Your task to perform on an android device: set default search engine in the chrome app Image 0: 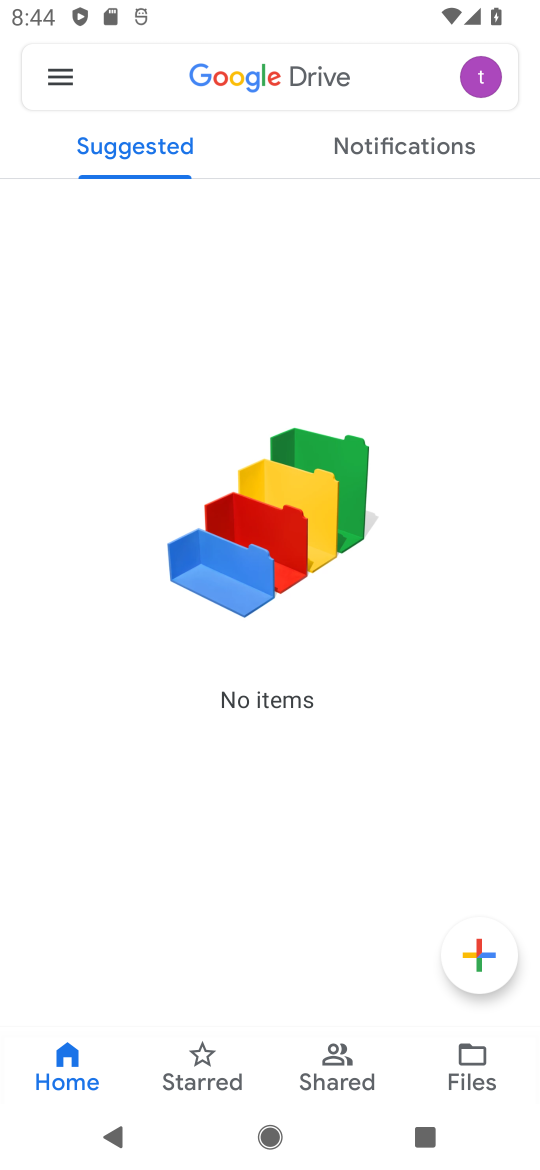
Step 0: press home button
Your task to perform on an android device: set default search engine in the chrome app Image 1: 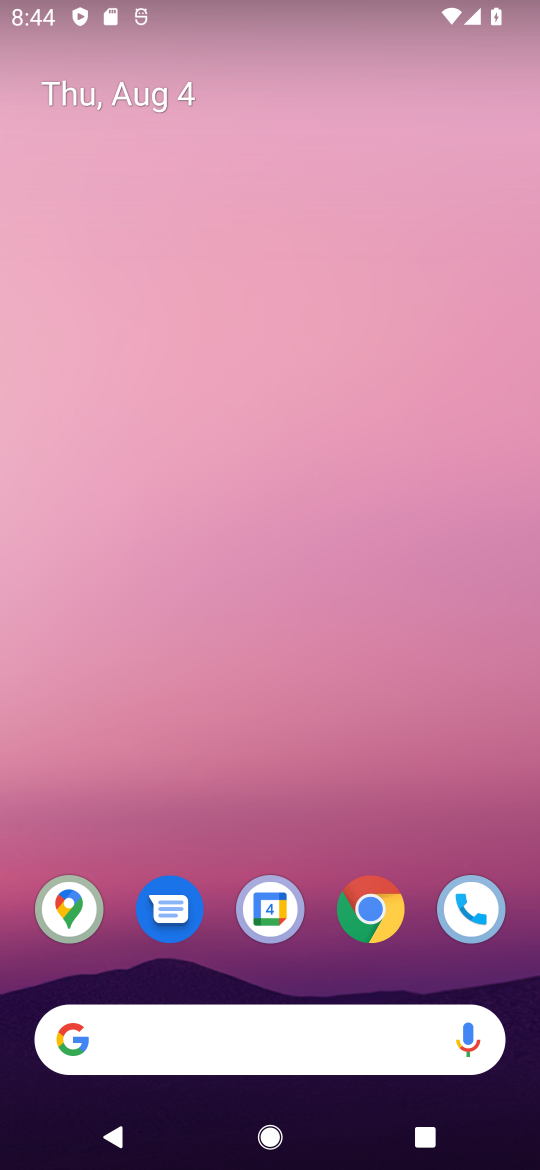
Step 1: drag from (351, 804) to (359, 298)
Your task to perform on an android device: set default search engine in the chrome app Image 2: 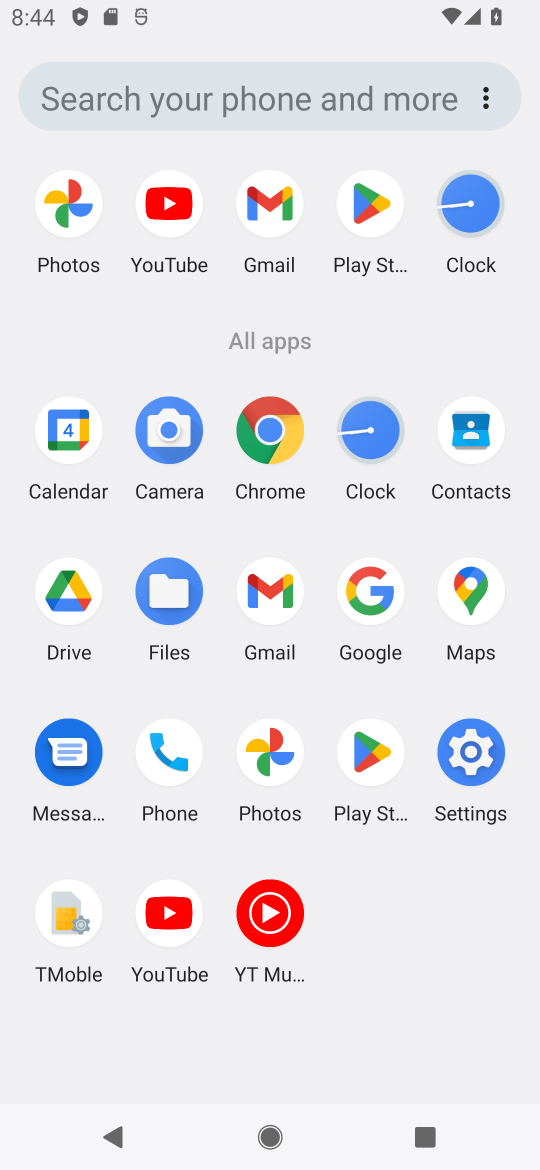
Step 2: click (272, 432)
Your task to perform on an android device: set default search engine in the chrome app Image 3: 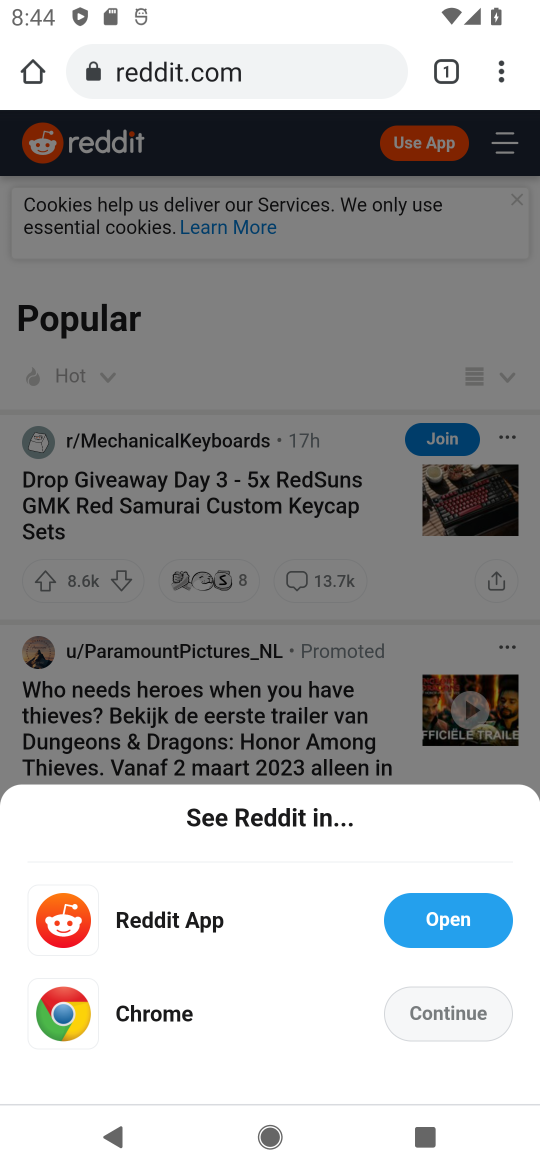
Step 3: click (507, 69)
Your task to perform on an android device: set default search engine in the chrome app Image 4: 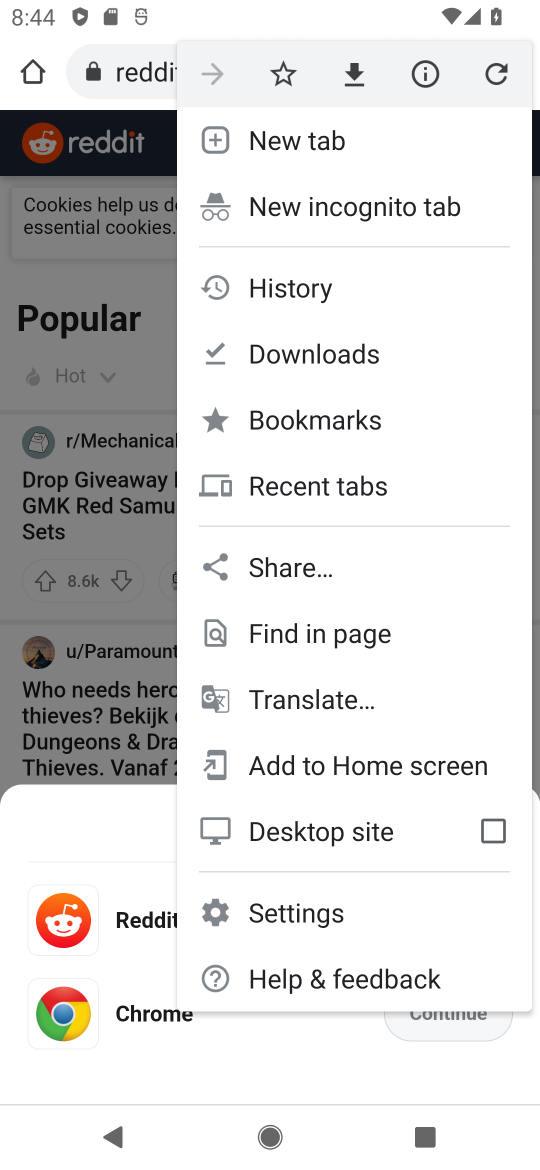
Step 4: click (330, 913)
Your task to perform on an android device: set default search engine in the chrome app Image 5: 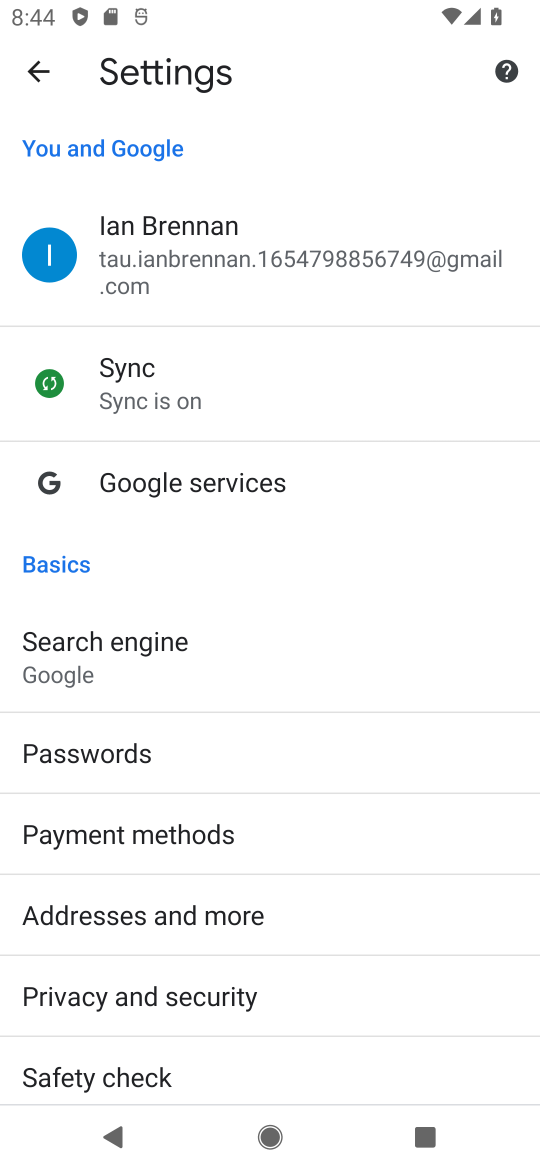
Step 5: drag from (372, 874) to (371, 632)
Your task to perform on an android device: set default search engine in the chrome app Image 6: 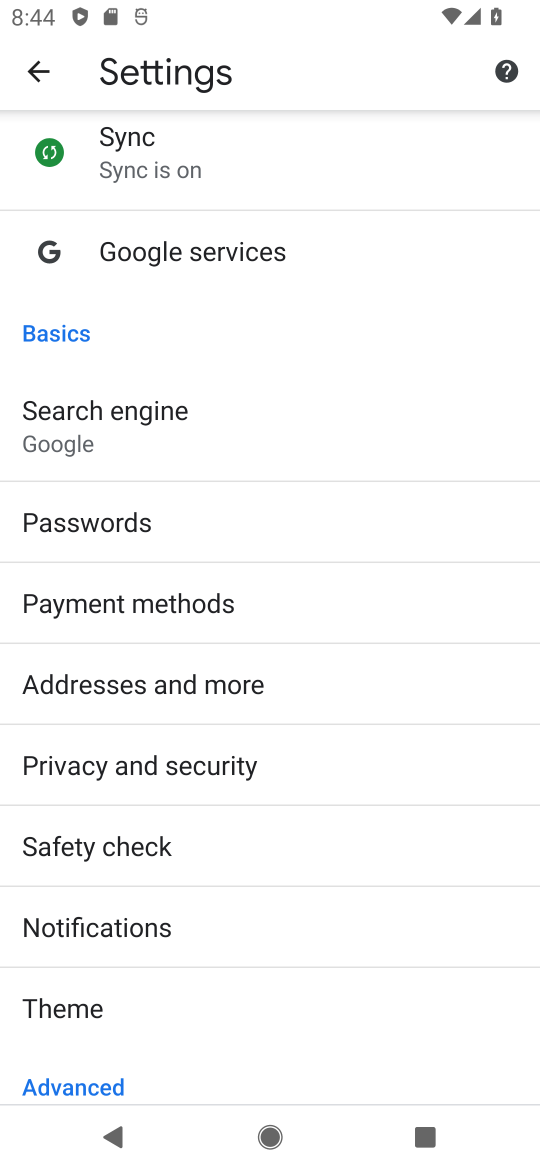
Step 6: drag from (369, 847) to (335, 638)
Your task to perform on an android device: set default search engine in the chrome app Image 7: 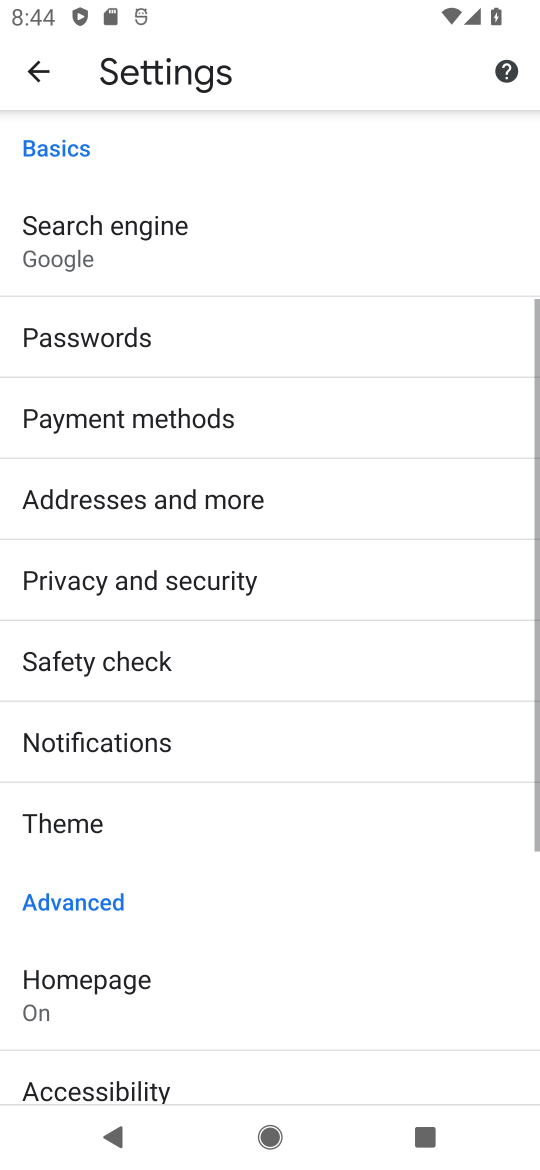
Step 7: drag from (336, 861) to (345, 640)
Your task to perform on an android device: set default search engine in the chrome app Image 8: 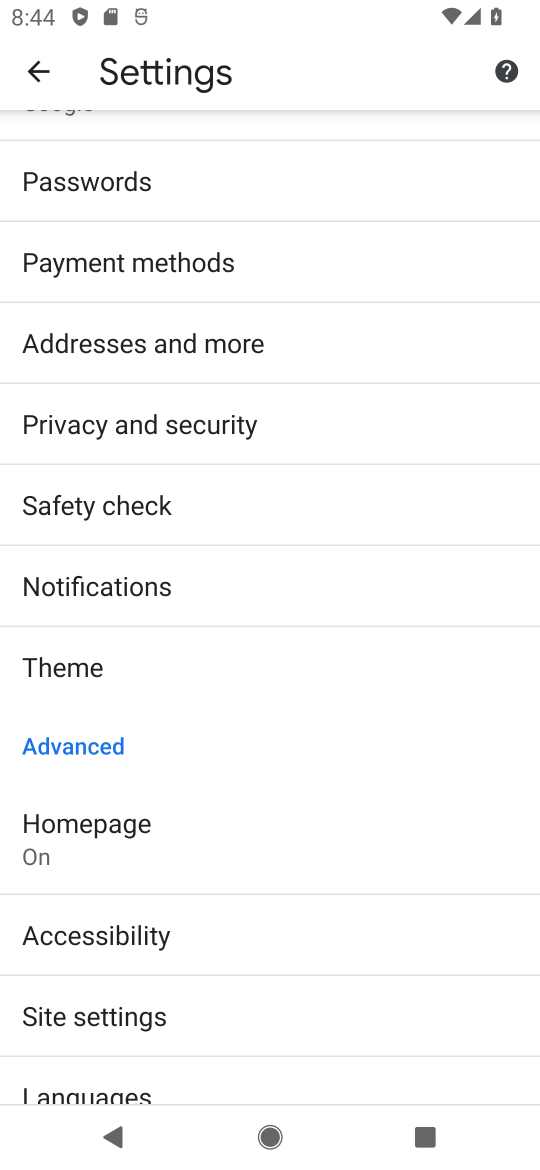
Step 8: drag from (440, 909) to (425, 709)
Your task to perform on an android device: set default search engine in the chrome app Image 9: 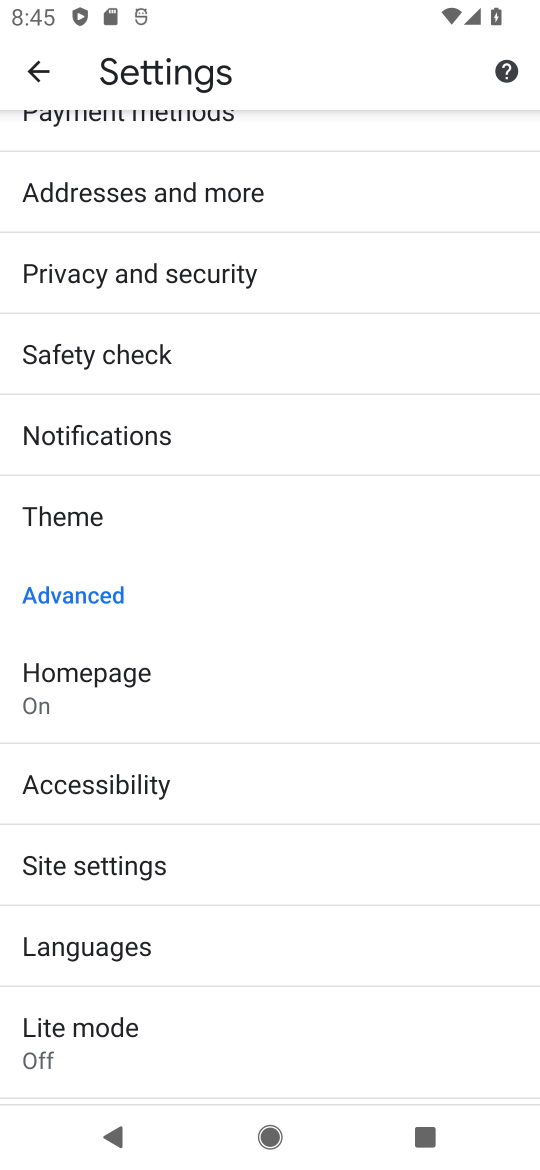
Step 9: drag from (403, 853) to (387, 705)
Your task to perform on an android device: set default search engine in the chrome app Image 10: 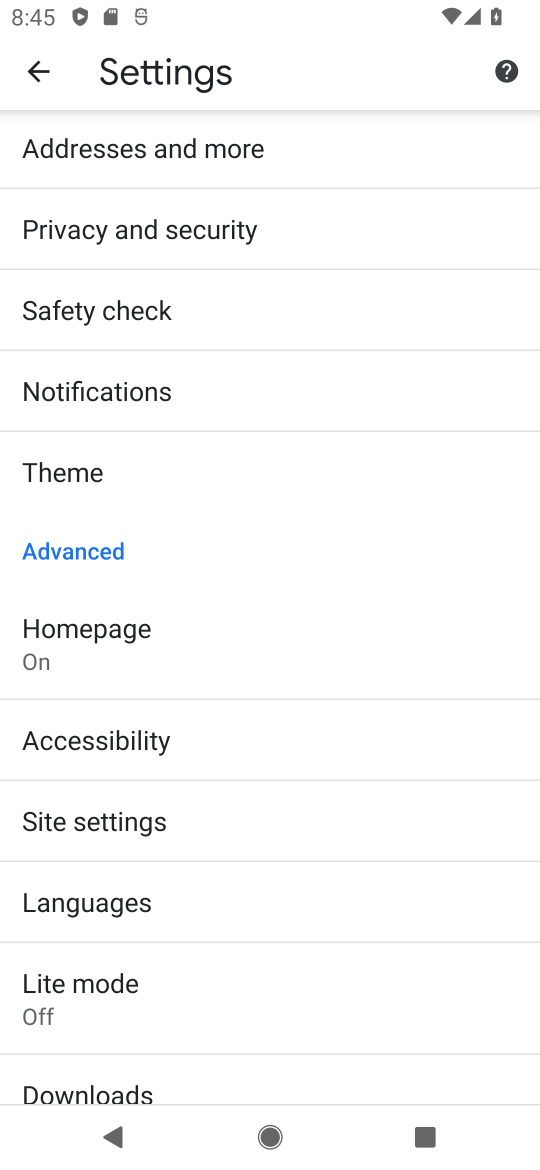
Step 10: drag from (375, 369) to (377, 522)
Your task to perform on an android device: set default search engine in the chrome app Image 11: 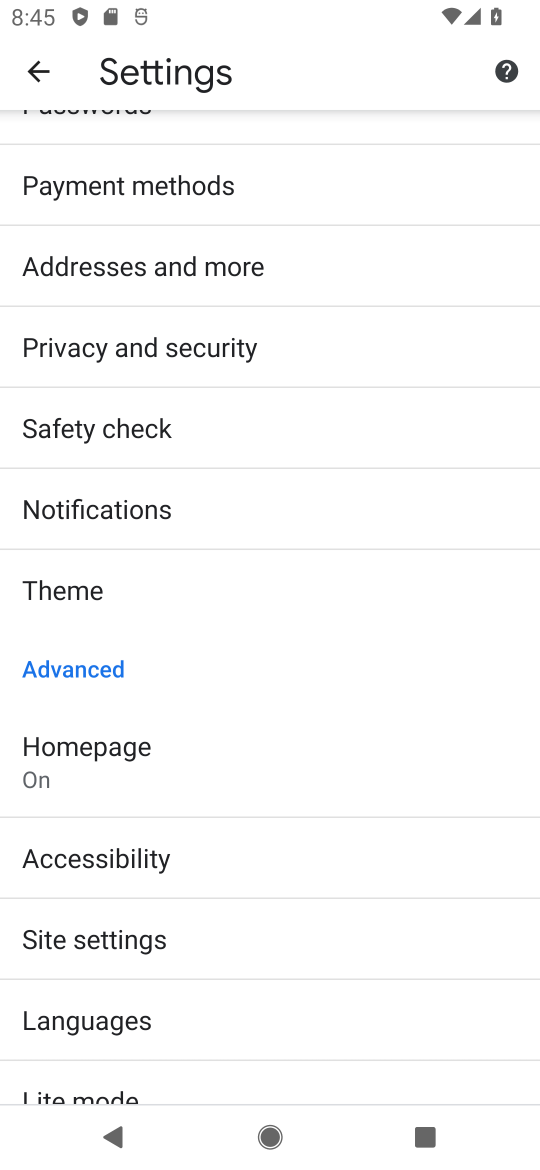
Step 11: drag from (377, 281) to (381, 499)
Your task to perform on an android device: set default search engine in the chrome app Image 12: 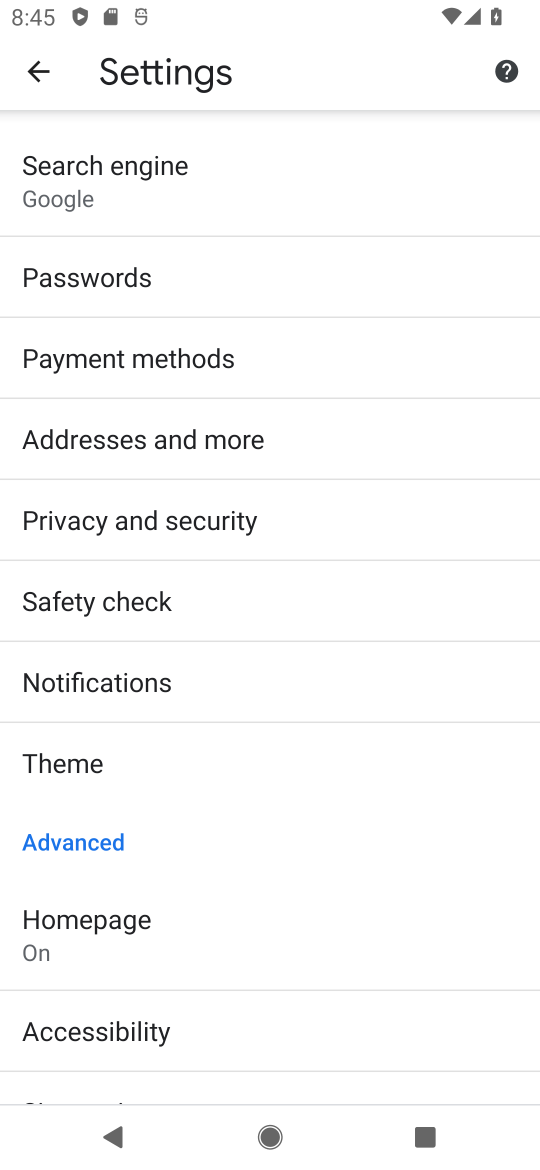
Step 12: drag from (386, 233) to (410, 439)
Your task to perform on an android device: set default search engine in the chrome app Image 13: 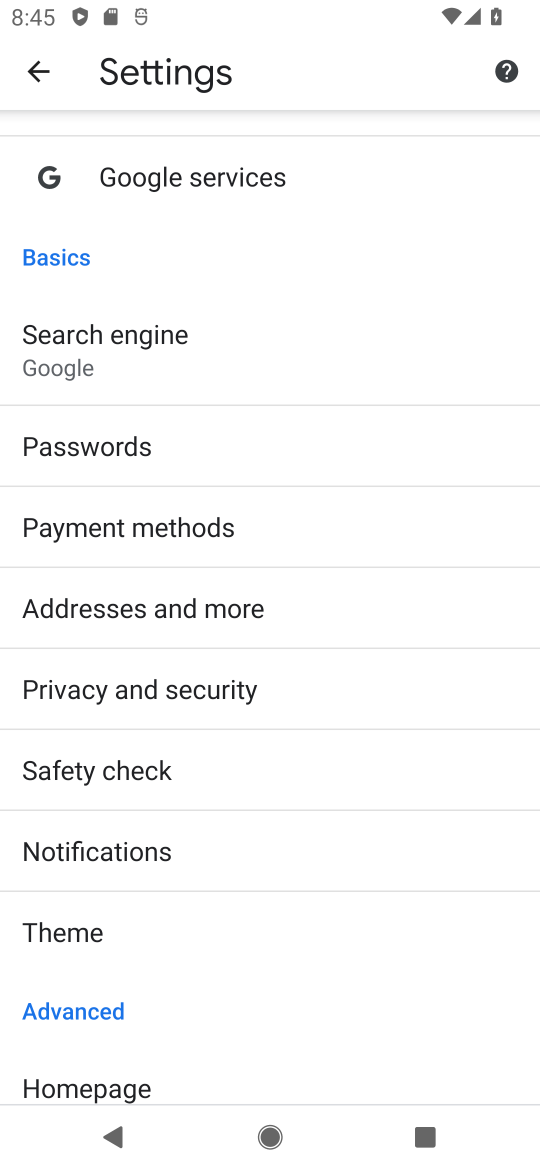
Step 13: click (217, 384)
Your task to perform on an android device: set default search engine in the chrome app Image 14: 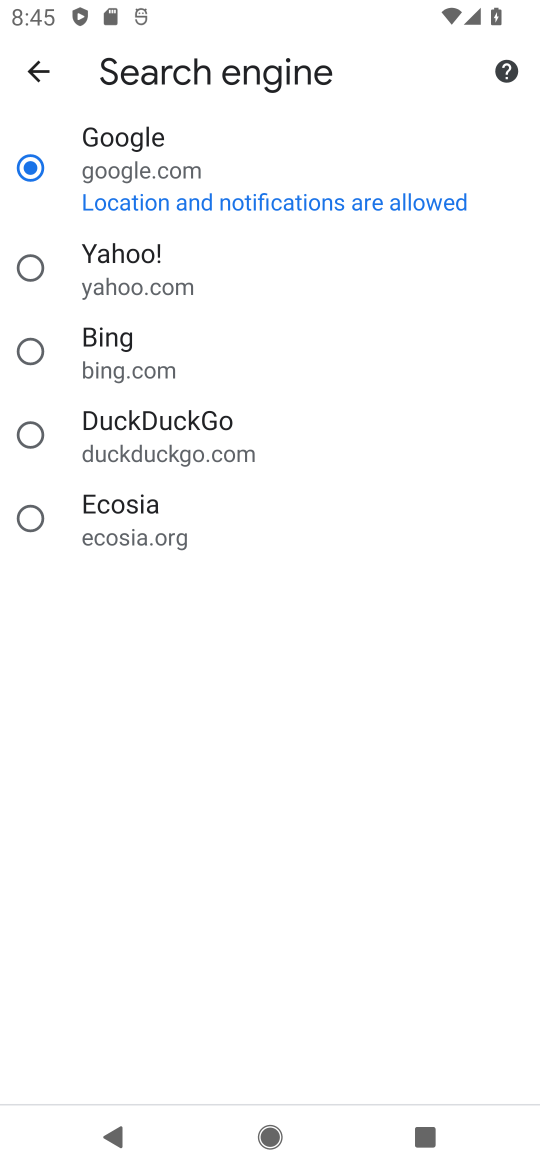
Step 14: click (104, 365)
Your task to perform on an android device: set default search engine in the chrome app Image 15: 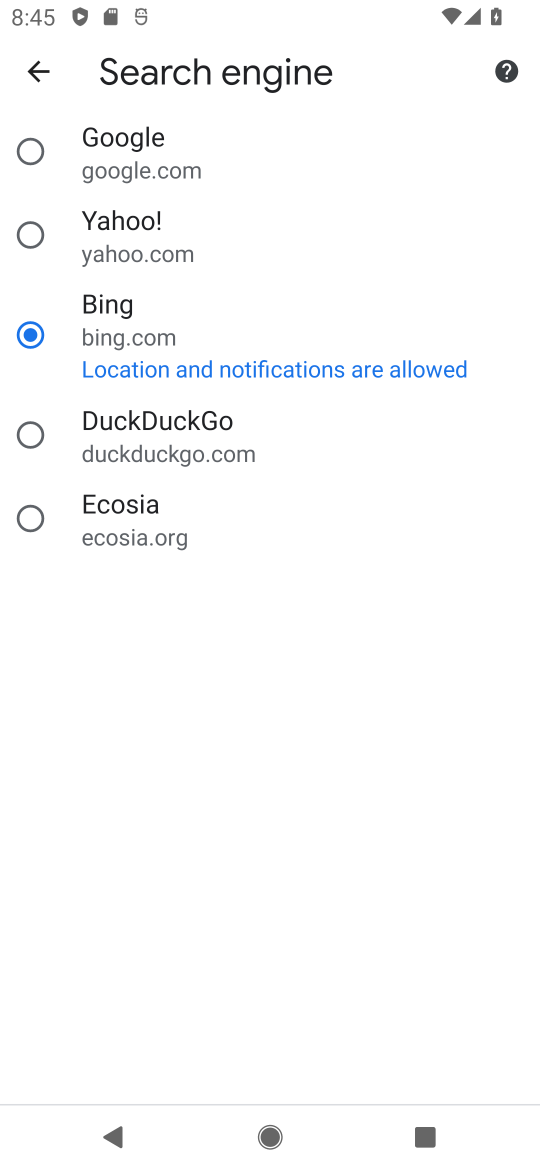
Step 15: task complete